Your task to perform on an android device: Open Google Chrome and open the bookmarks view Image 0: 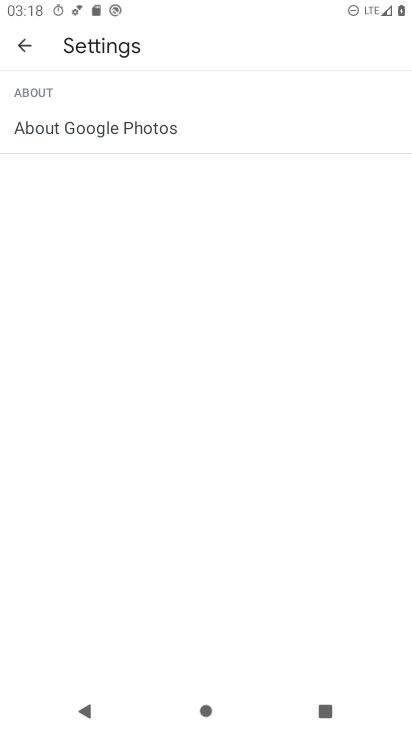
Step 0: press home button
Your task to perform on an android device: Open Google Chrome and open the bookmarks view Image 1: 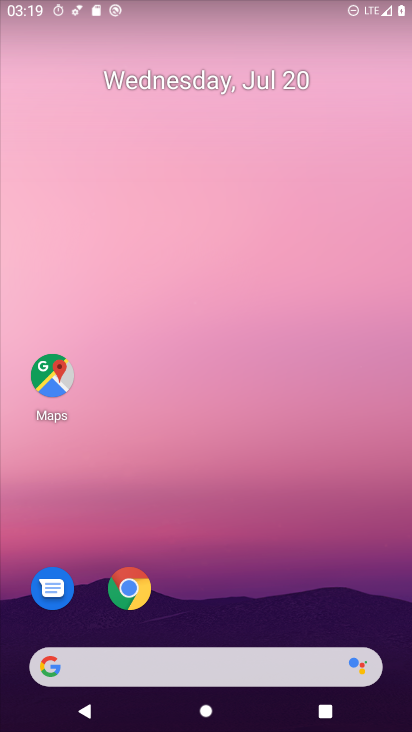
Step 1: click (140, 603)
Your task to perform on an android device: Open Google Chrome and open the bookmarks view Image 2: 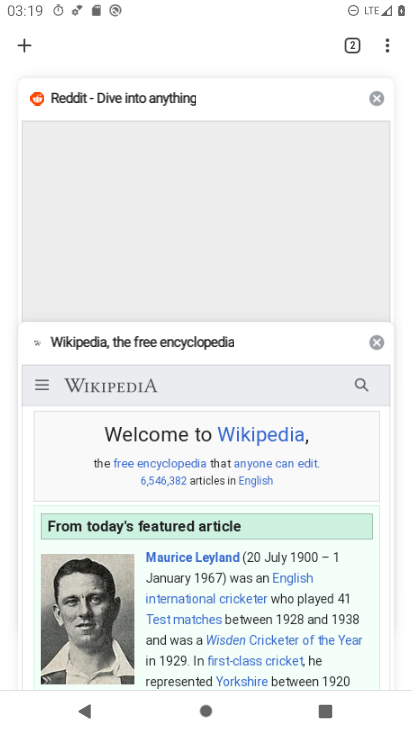
Step 2: click (230, 424)
Your task to perform on an android device: Open Google Chrome and open the bookmarks view Image 3: 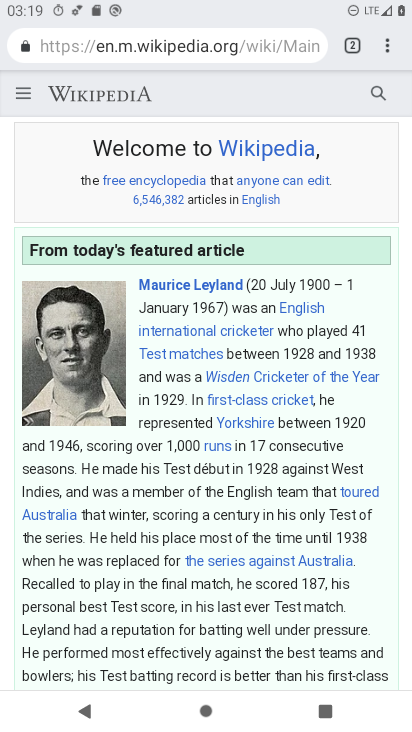
Step 3: click (379, 47)
Your task to perform on an android device: Open Google Chrome and open the bookmarks view Image 4: 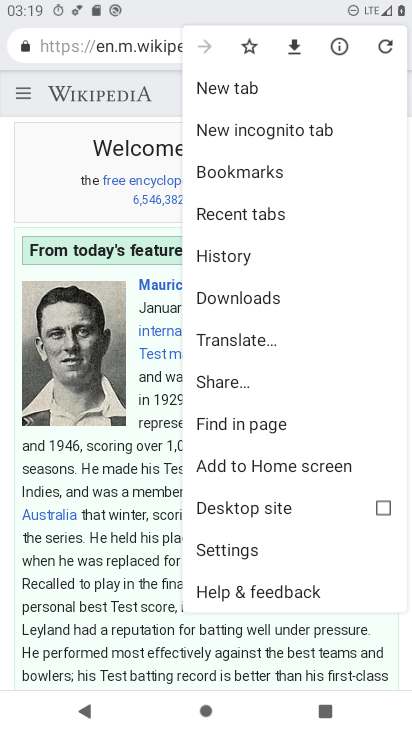
Step 4: click (231, 170)
Your task to perform on an android device: Open Google Chrome and open the bookmarks view Image 5: 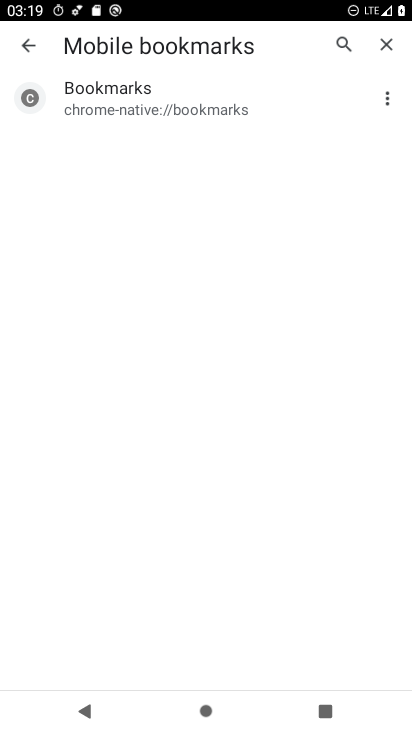
Step 5: task complete